Your task to perform on an android device: Go to Reddit.com Image 0: 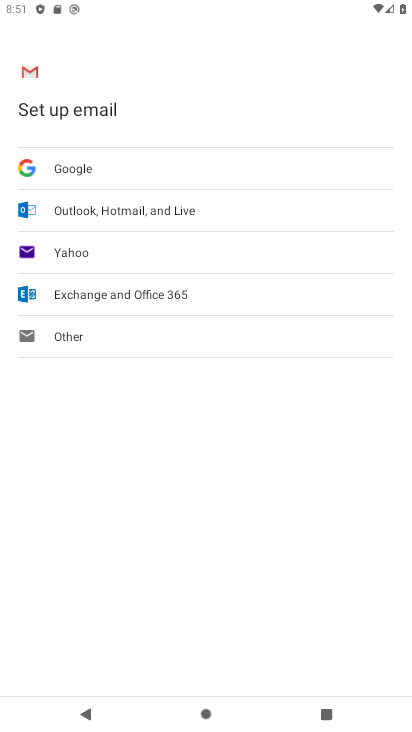
Step 0: press home button
Your task to perform on an android device: Go to Reddit.com Image 1: 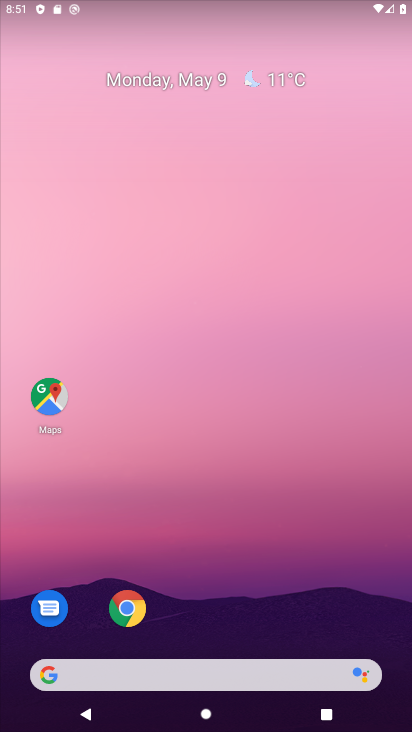
Step 1: click (125, 612)
Your task to perform on an android device: Go to Reddit.com Image 2: 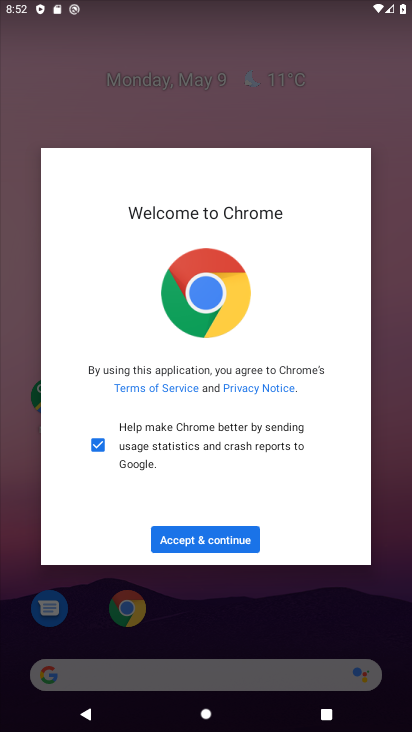
Step 2: click (228, 540)
Your task to perform on an android device: Go to Reddit.com Image 3: 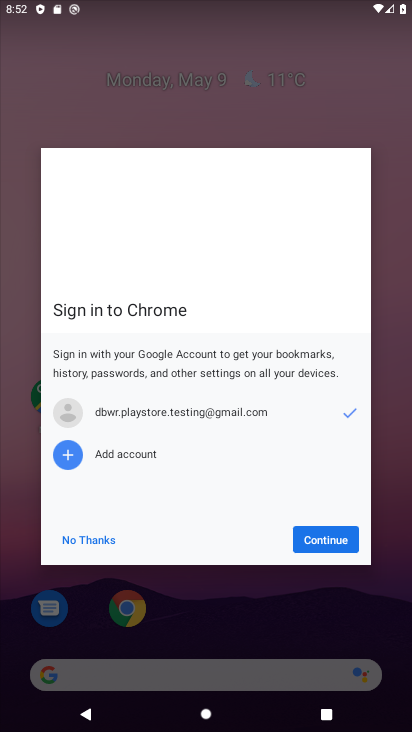
Step 3: click (333, 531)
Your task to perform on an android device: Go to Reddit.com Image 4: 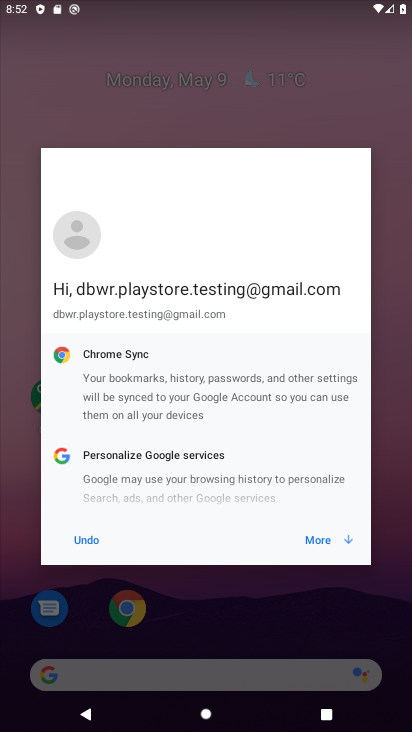
Step 4: click (322, 544)
Your task to perform on an android device: Go to Reddit.com Image 5: 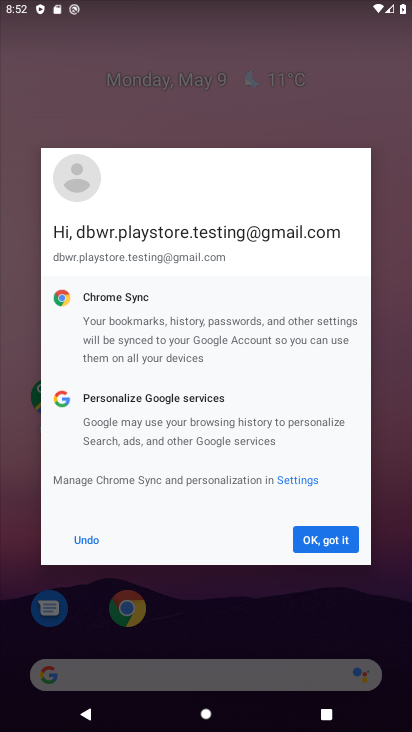
Step 5: click (346, 542)
Your task to perform on an android device: Go to Reddit.com Image 6: 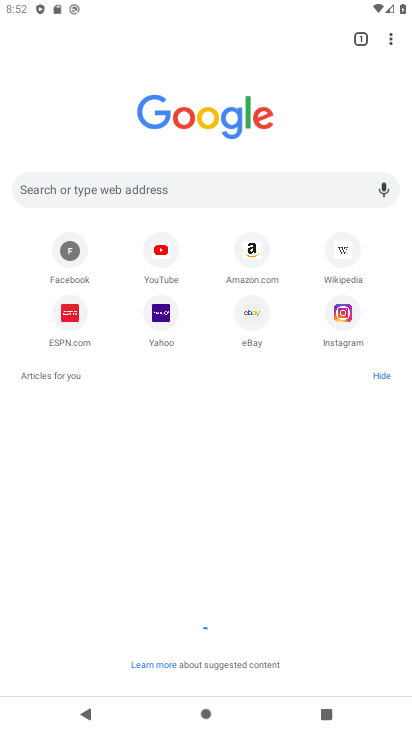
Step 6: click (103, 191)
Your task to perform on an android device: Go to Reddit.com Image 7: 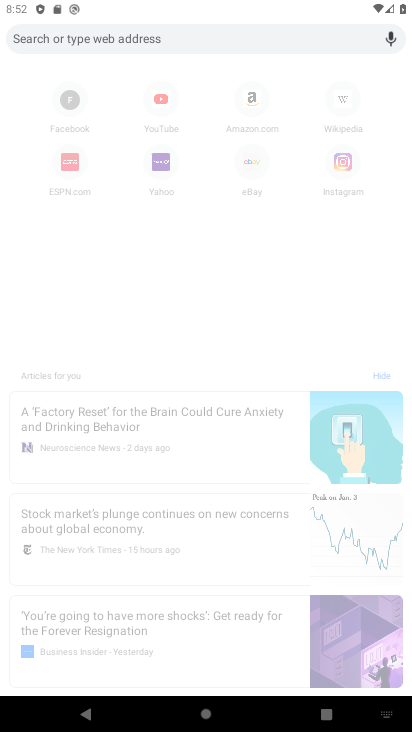
Step 7: type "Reddit.com"
Your task to perform on an android device: Go to Reddit.com Image 8: 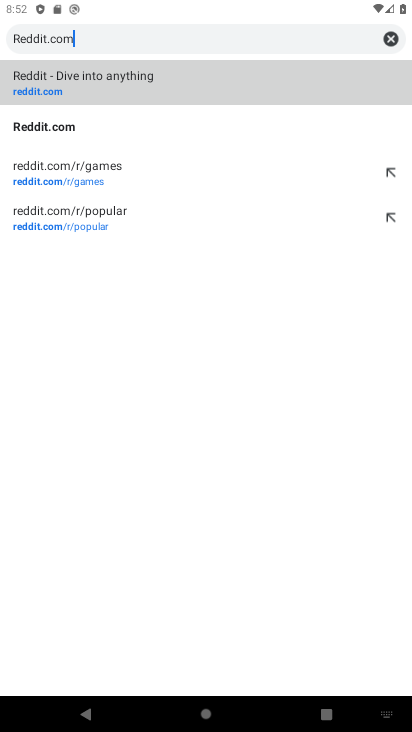
Step 8: click (82, 138)
Your task to perform on an android device: Go to Reddit.com Image 9: 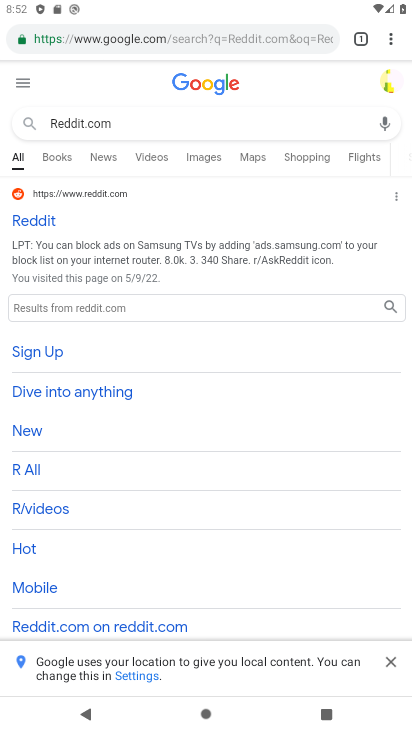
Step 9: task complete